Your task to perform on an android device: Is it going to rain today? Image 0: 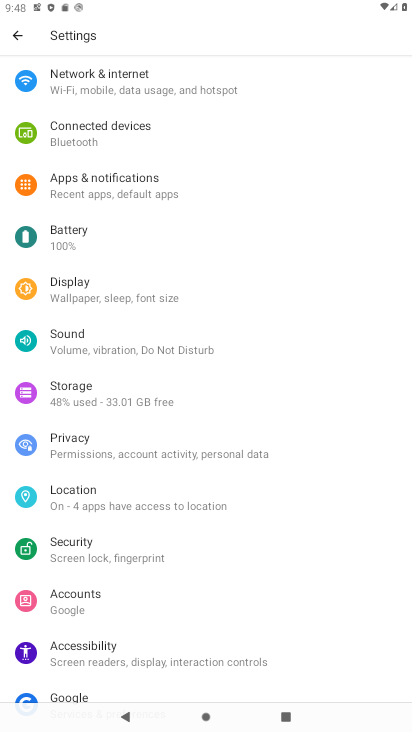
Step 0: press home button
Your task to perform on an android device: Is it going to rain today? Image 1: 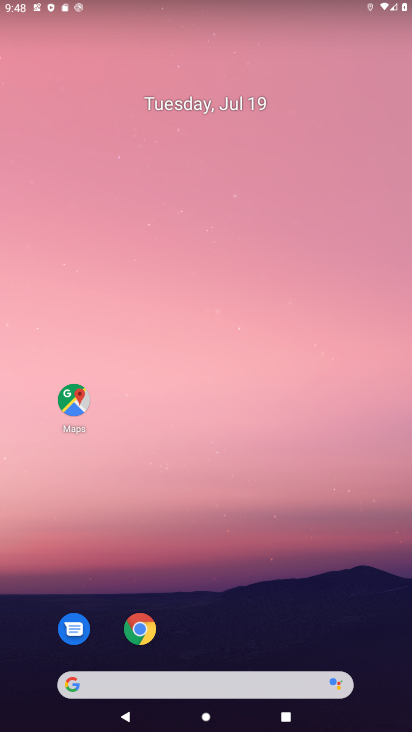
Step 1: click (176, 683)
Your task to perform on an android device: Is it going to rain today? Image 2: 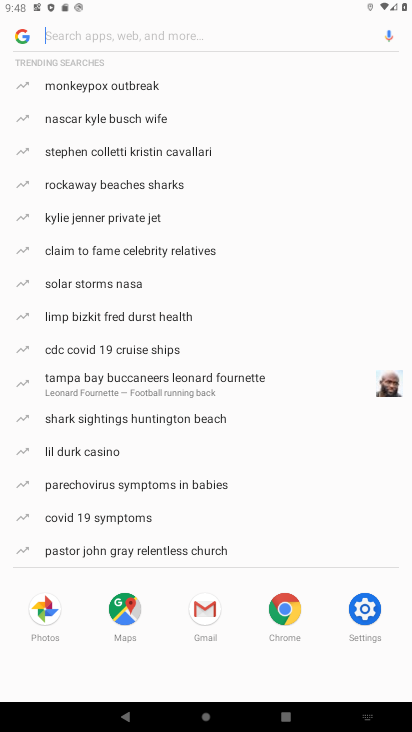
Step 2: type "weather"
Your task to perform on an android device: Is it going to rain today? Image 3: 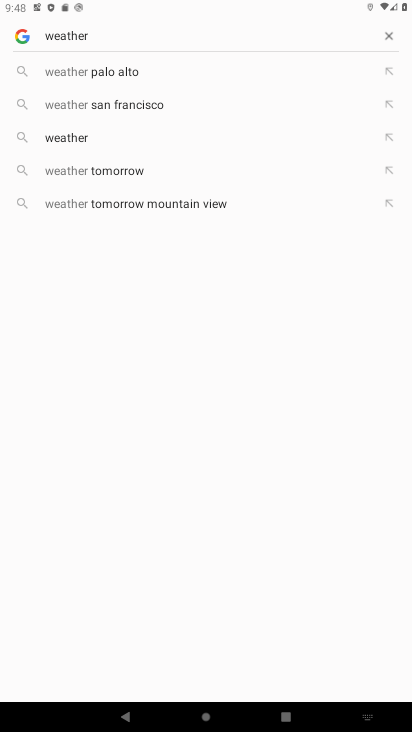
Step 3: click (73, 144)
Your task to perform on an android device: Is it going to rain today? Image 4: 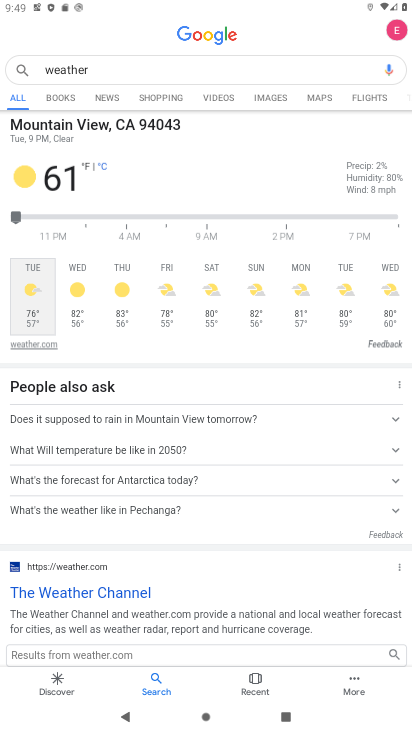
Step 4: task complete